Your task to perform on an android device: When is my next appointment? Image 0: 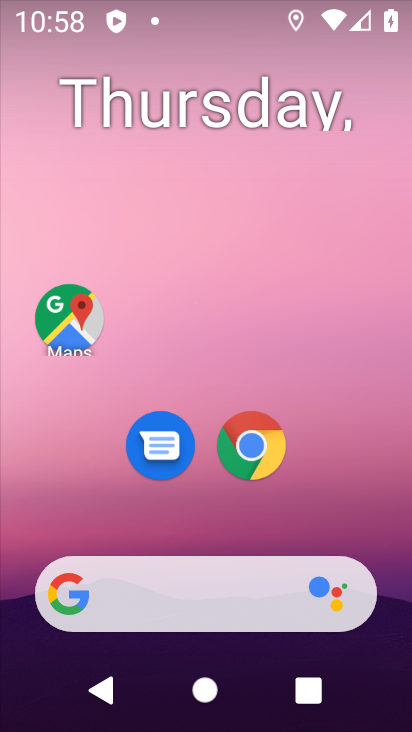
Step 0: drag from (392, 621) to (287, 79)
Your task to perform on an android device: When is my next appointment? Image 1: 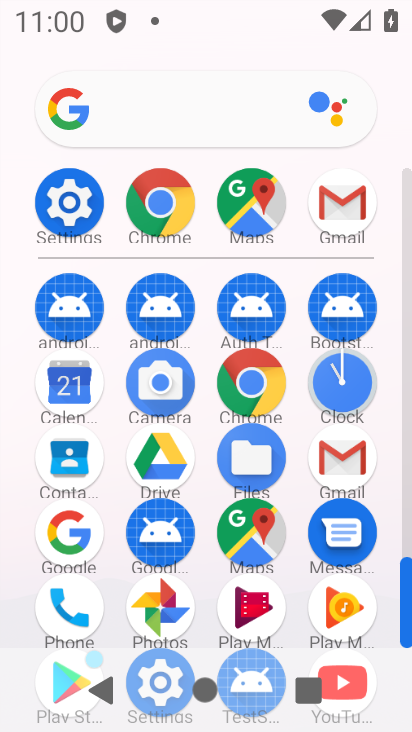
Step 1: task complete